Your task to perform on an android device: Clear all items from cart on costco. Search for usb-a to usb-b on costco, select the first entry, add it to the cart, then select checkout. Image 0: 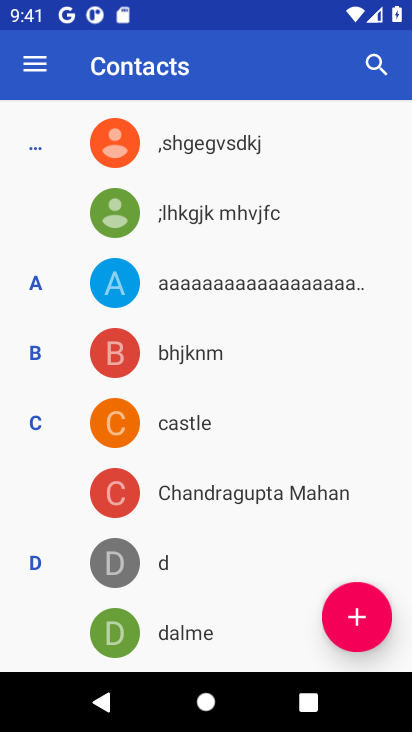
Step 0: click (264, 537)
Your task to perform on an android device: Clear all items from cart on costco. Search for usb-a to usb-b on costco, select the first entry, add it to the cart, then select checkout. Image 1: 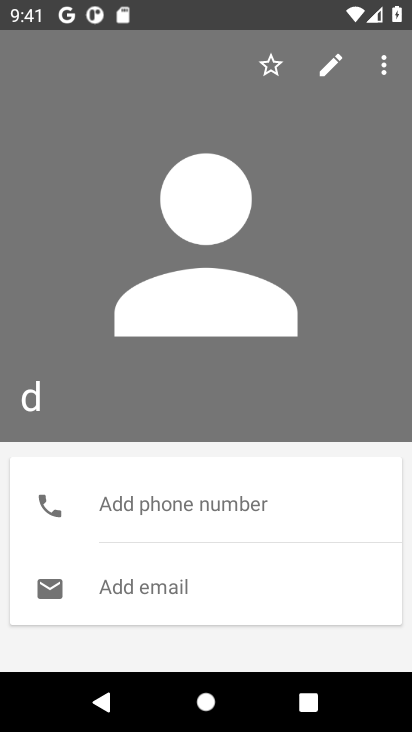
Step 1: press home button
Your task to perform on an android device: Clear all items from cart on costco. Search for usb-a to usb-b on costco, select the first entry, add it to the cart, then select checkout. Image 2: 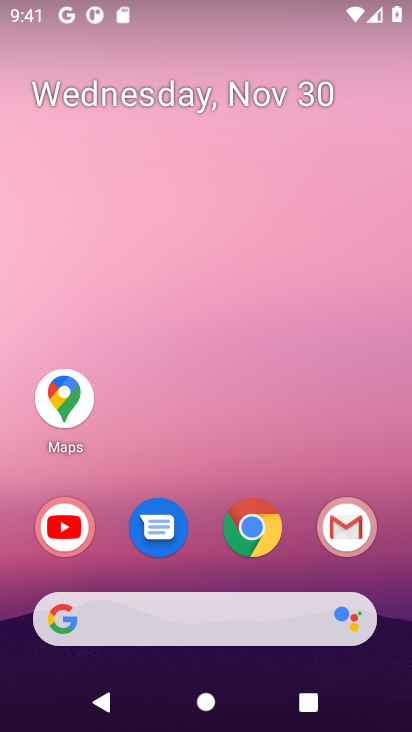
Step 2: click (245, 522)
Your task to perform on an android device: Clear all items from cart on costco. Search for usb-a to usb-b on costco, select the first entry, add it to the cart, then select checkout. Image 3: 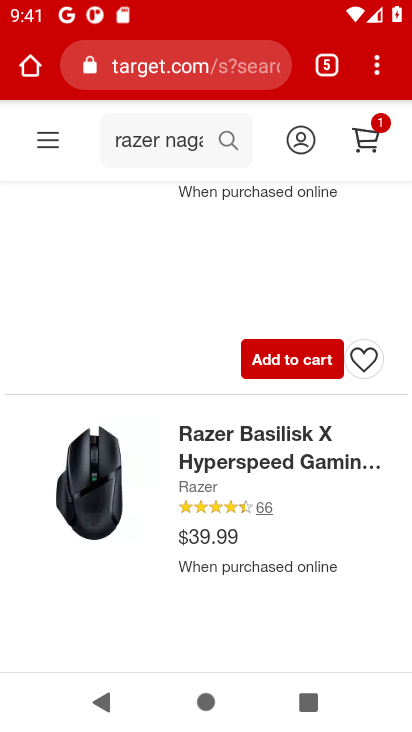
Step 3: click (146, 50)
Your task to perform on an android device: Clear all items from cart on costco. Search for usb-a to usb-b on costco, select the first entry, add it to the cart, then select checkout. Image 4: 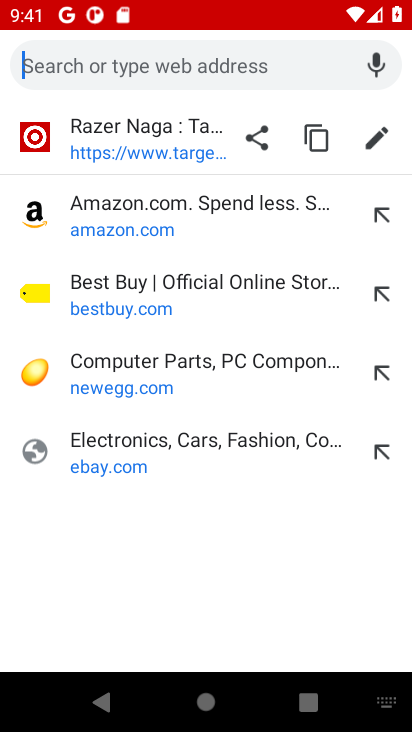
Step 4: type "costco"
Your task to perform on an android device: Clear all items from cart on costco. Search for usb-a to usb-b on costco, select the first entry, add it to the cart, then select checkout. Image 5: 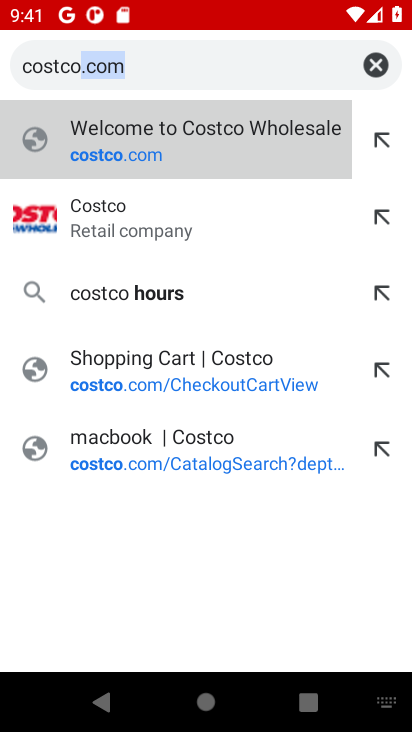
Step 5: click (199, 52)
Your task to perform on an android device: Clear all items from cart on costco. Search for usb-a to usb-b on costco, select the first entry, add it to the cart, then select checkout. Image 6: 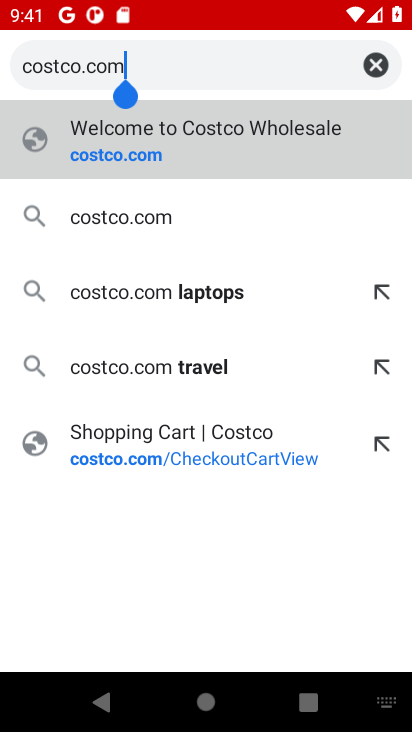
Step 6: click (154, 218)
Your task to perform on an android device: Clear all items from cart on costco. Search for usb-a to usb-b on costco, select the first entry, add it to the cart, then select checkout. Image 7: 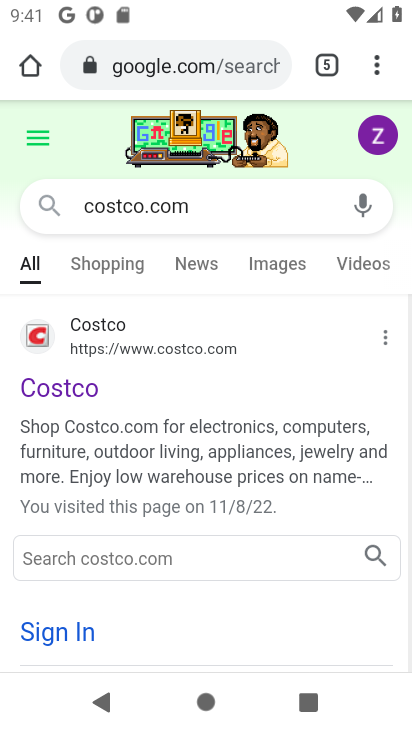
Step 7: click (169, 347)
Your task to perform on an android device: Clear all items from cart on costco. Search for usb-a to usb-b on costco, select the first entry, add it to the cart, then select checkout. Image 8: 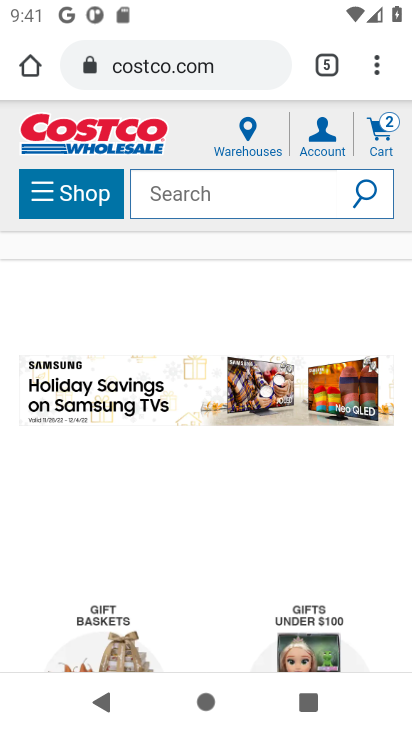
Step 8: click (390, 140)
Your task to perform on an android device: Clear all items from cart on costco. Search for usb-a to usb-b on costco, select the first entry, add it to the cart, then select checkout. Image 9: 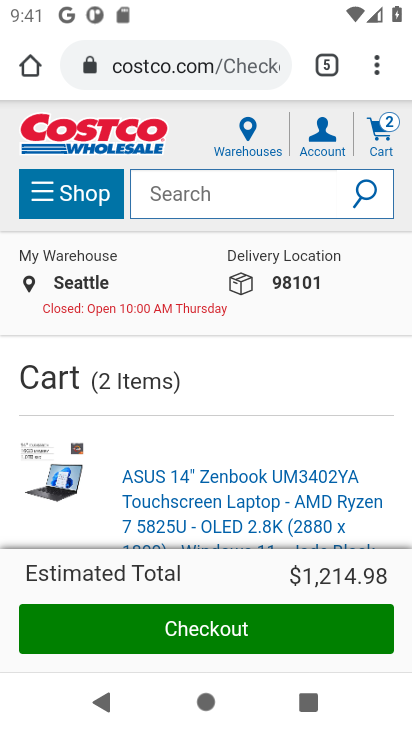
Step 9: drag from (329, 414) to (284, 36)
Your task to perform on an android device: Clear all items from cart on costco. Search for usb-a to usb-b on costco, select the first entry, add it to the cart, then select checkout. Image 10: 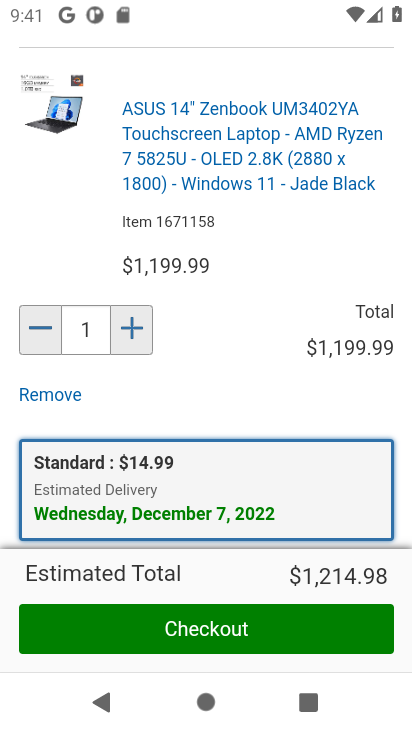
Step 10: click (49, 330)
Your task to perform on an android device: Clear all items from cart on costco. Search for usb-a to usb-b on costco, select the first entry, add it to the cart, then select checkout. Image 11: 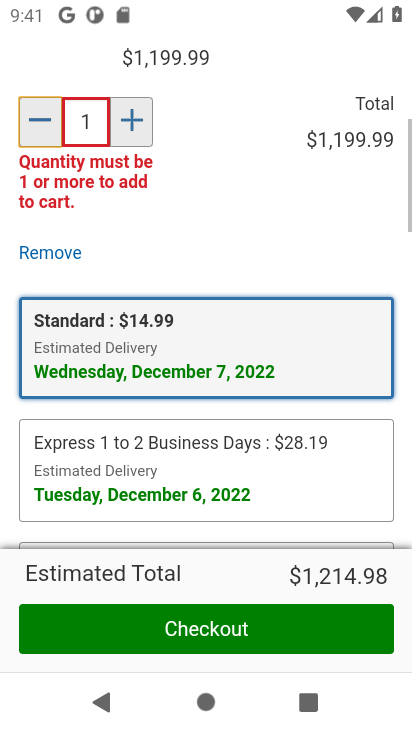
Step 11: click (62, 398)
Your task to perform on an android device: Clear all items from cart on costco. Search for usb-a to usb-b on costco, select the first entry, add it to the cart, then select checkout. Image 12: 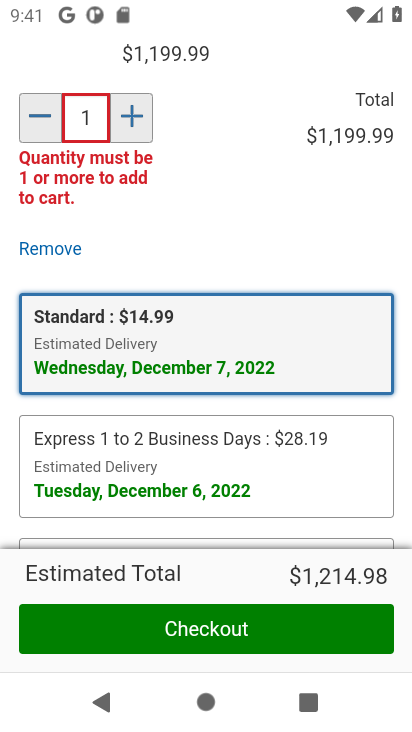
Step 12: click (61, 252)
Your task to perform on an android device: Clear all items from cart on costco. Search for usb-a to usb-b on costco, select the first entry, add it to the cart, then select checkout. Image 13: 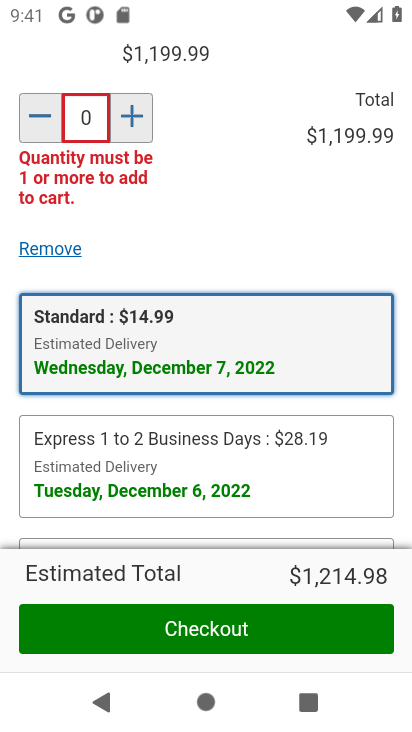
Step 13: drag from (333, 480) to (285, 665)
Your task to perform on an android device: Clear all items from cart on costco. Search for usb-a to usb-b on costco, select the first entry, add it to the cart, then select checkout. Image 14: 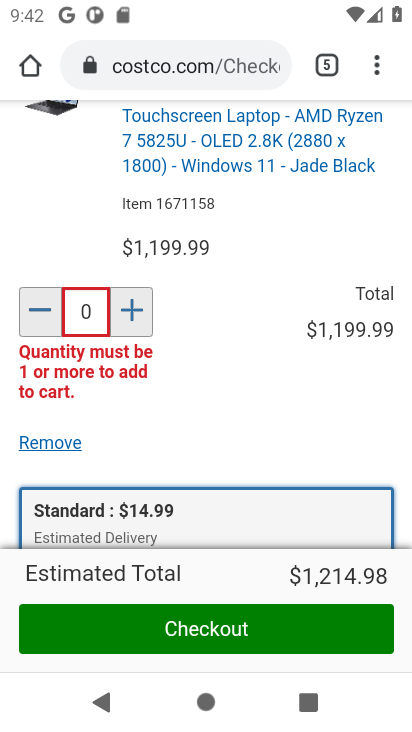
Step 14: drag from (220, 147) to (336, 587)
Your task to perform on an android device: Clear all items from cart on costco. Search for usb-a to usb-b on costco, select the first entry, add it to the cart, then select checkout. Image 15: 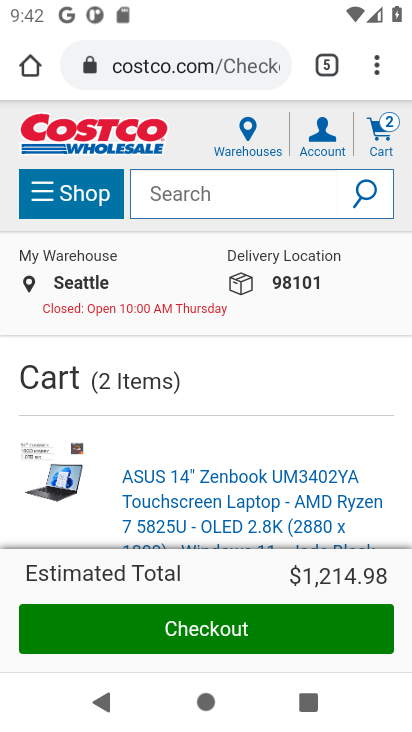
Step 15: click (240, 193)
Your task to perform on an android device: Clear all items from cart on costco. Search for usb-a to usb-b on costco, select the first entry, add it to the cart, then select checkout. Image 16: 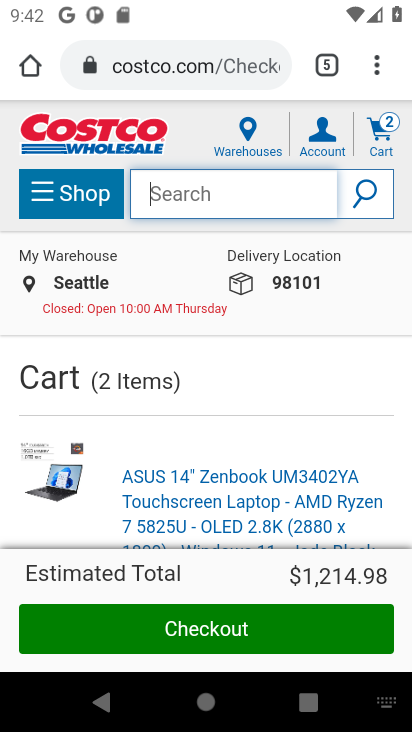
Step 16: type "usb-a to usb-b"
Your task to perform on an android device: Clear all items from cart on costco. Search for usb-a to usb-b on costco, select the first entry, add it to the cart, then select checkout. Image 17: 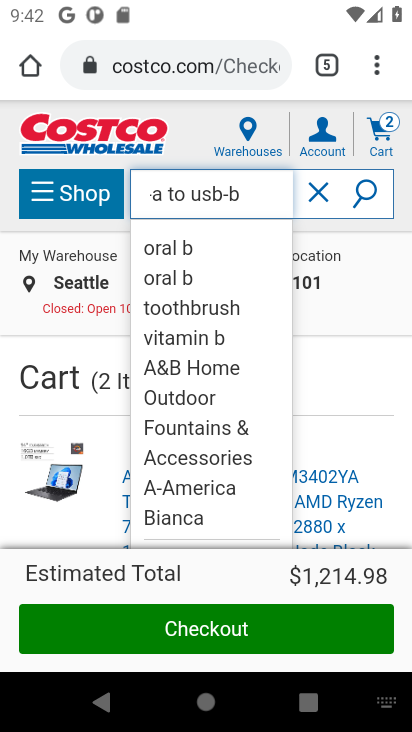
Step 17: click (366, 195)
Your task to perform on an android device: Clear all items from cart on costco. Search for usb-a to usb-b on costco, select the first entry, add it to the cart, then select checkout. Image 18: 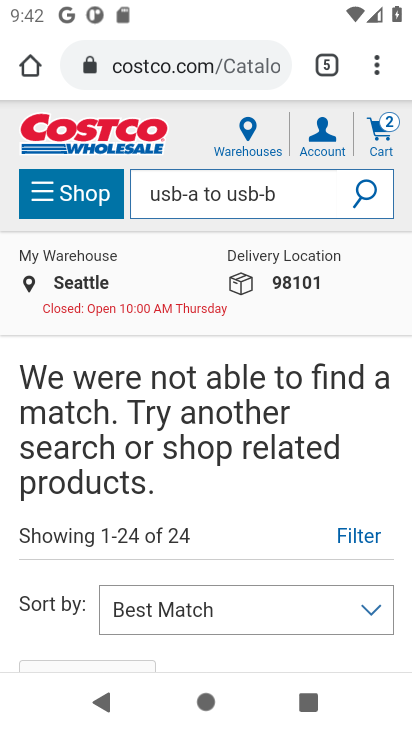
Step 18: task complete